Your task to perform on an android device: Open calendar and show me the third week of next month Image 0: 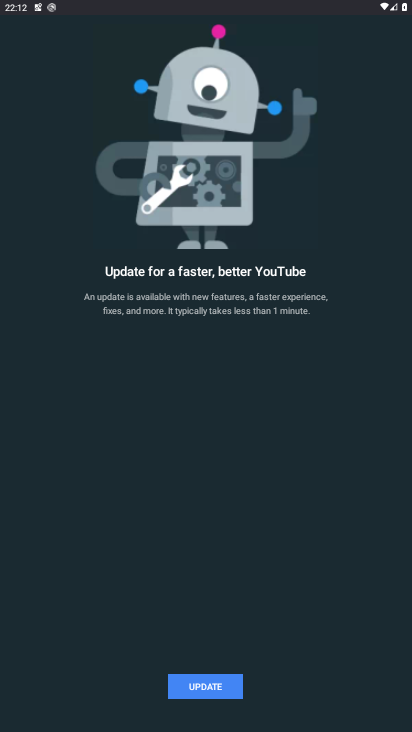
Step 0: press back button
Your task to perform on an android device: Open calendar and show me the third week of next month Image 1: 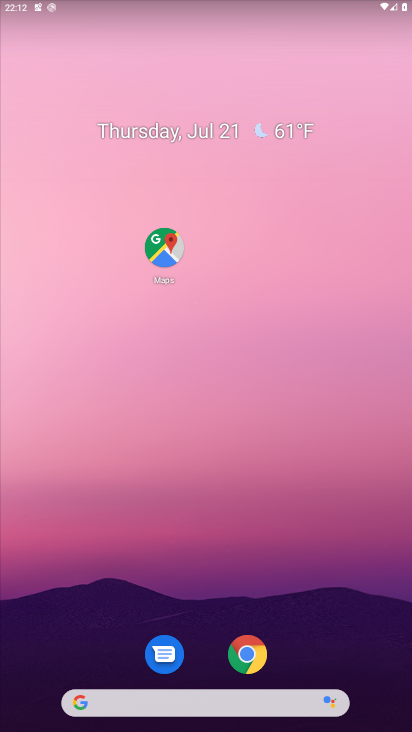
Step 1: drag from (44, 659) to (182, 128)
Your task to perform on an android device: Open calendar and show me the third week of next month Image 2: 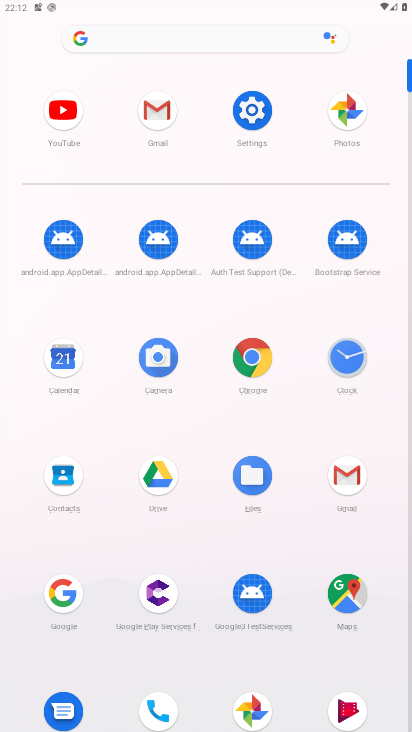
Step 2: click (351, 342)
Your task to perform on an android device: Open calendar and show me the third week of next month Image 3: 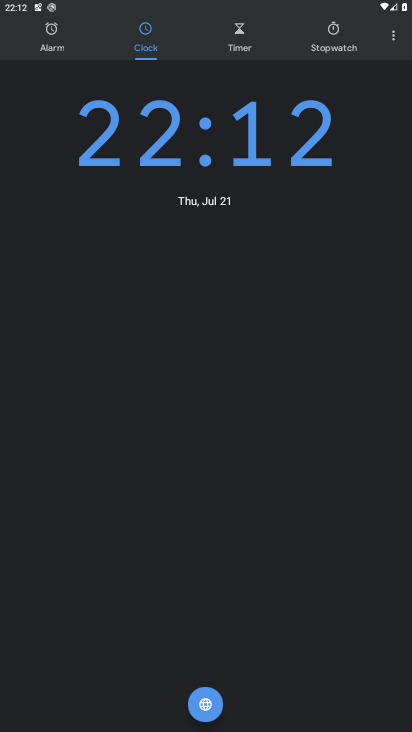
Step 3: press home button
Your task to perform on an android device: Open calendar and show me the third week of next month Image 4: 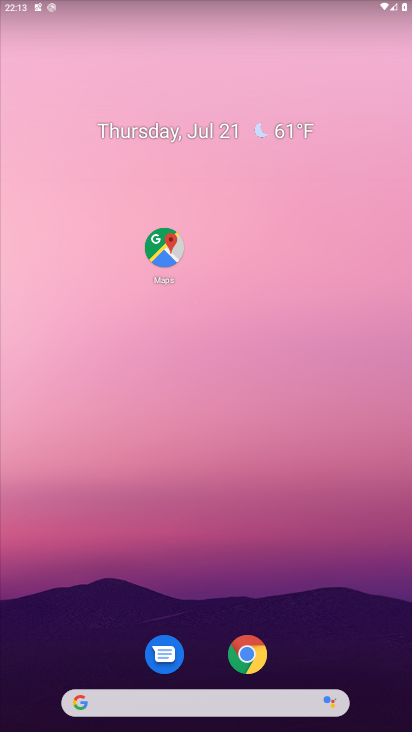
Step 4: drag from (32, 672) to (295, 48)
Your task to perform on an android device: Open calendar and show me the third week of next month Image 5: 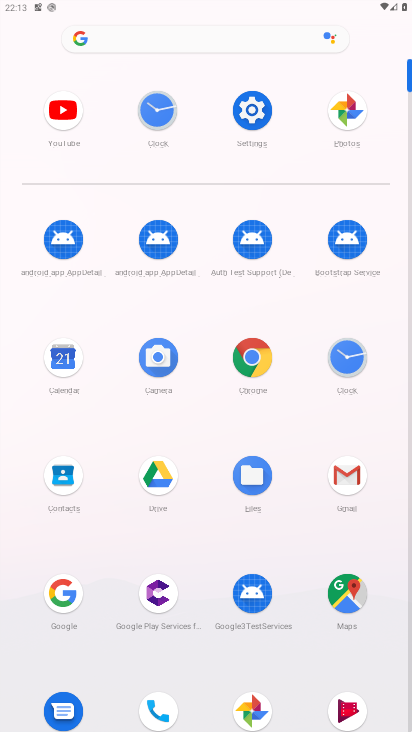
Step 5: click (64, 374)
Your task to perform on an android device: Open calendar and show me the third week of next month Image 6: 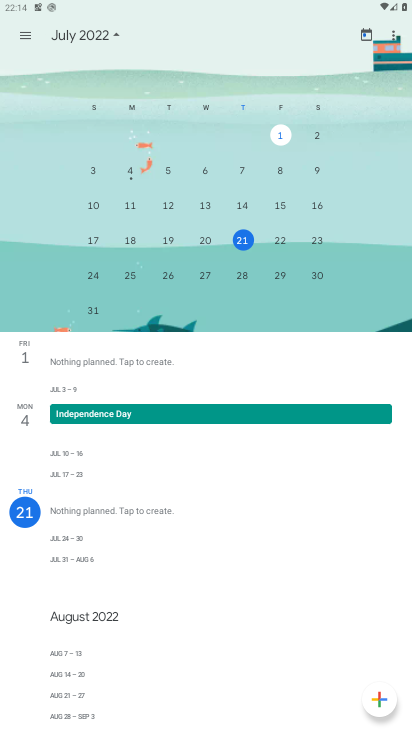
Step 6: drag from (347, 180) to (44, 192)
Your task to perform on an android device: Open calendar and show me the third week of next month Image 7: 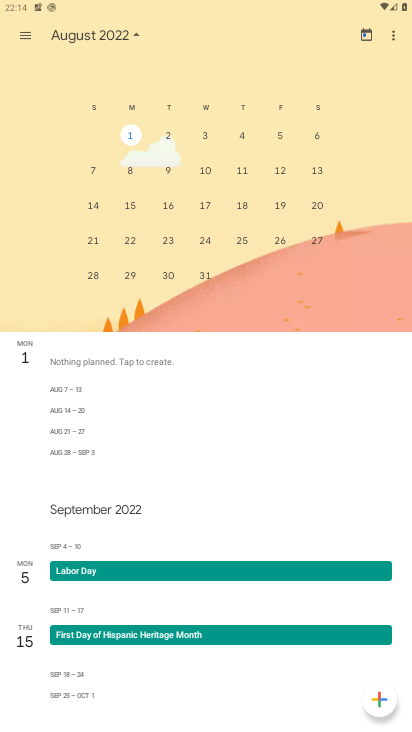
Step 7: click (133, 200)
Your task to perform on an android device: Open calendar and show me the third week of next month Image 8: 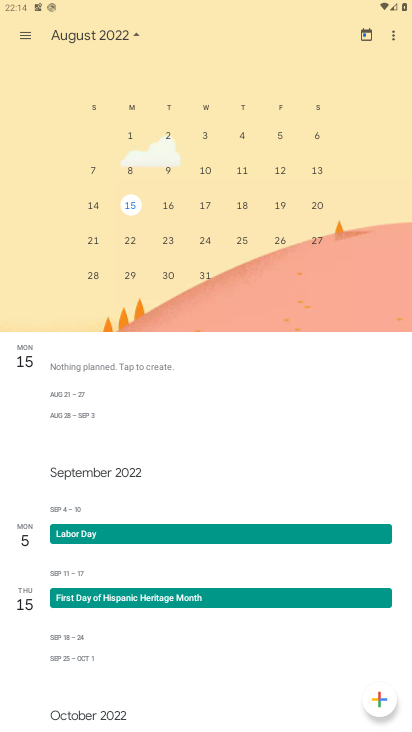
Step 8: task complete